Your task to perform on an android device: delete the emails in spam in the gmail app Image 0: 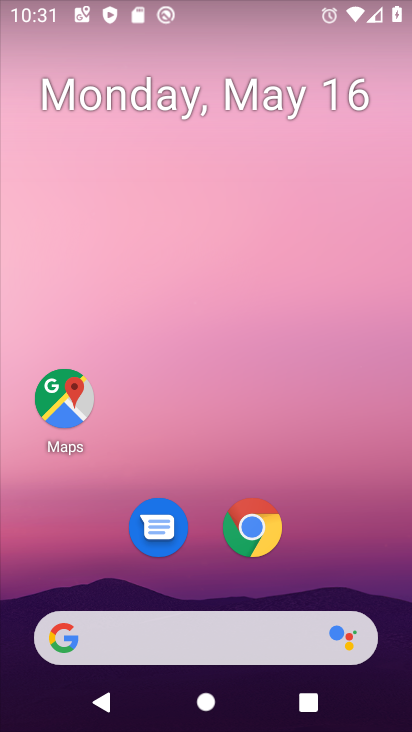
Step 0: drag from (358, 569) to (268, 7)
Your task to perform on an android device: delete the emails in spam in the gmail app Image 1: 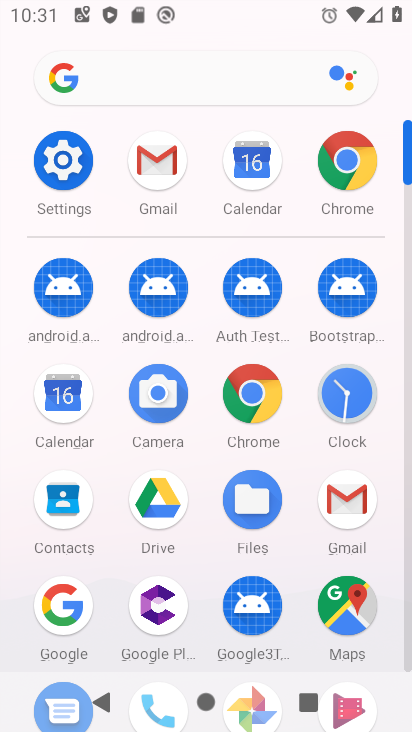
Step 1: click (147, 174)
Your task to perform on an android device: delete the emails in spam in the gmail app Image 2: 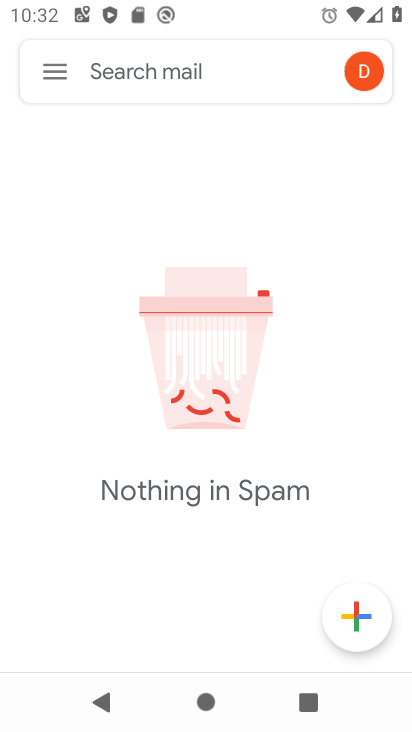
Step 2: task complete